Your task to perform on an android device: Open Maps and search for coffee Image 0: 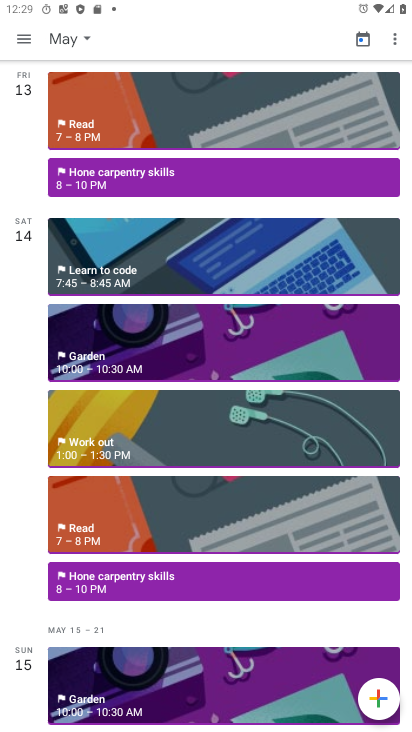
Step 0: press home button
Your task to perform on an android device: Open Maps and search for coffee Image 1: 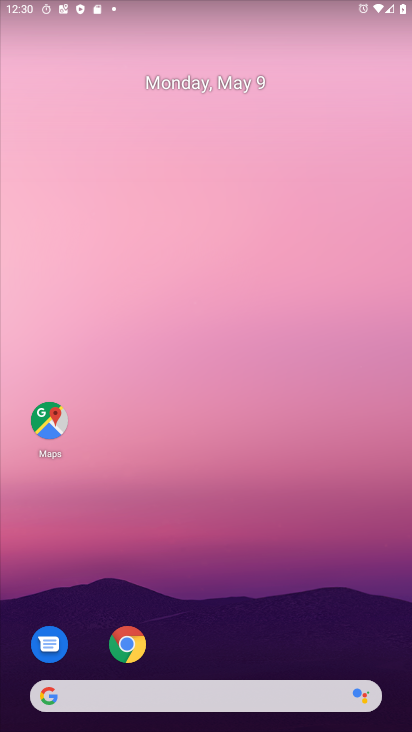
Step 1: click (52, 423)
Your task to perform on an android device: Open Maps and search for coffee Image 2: 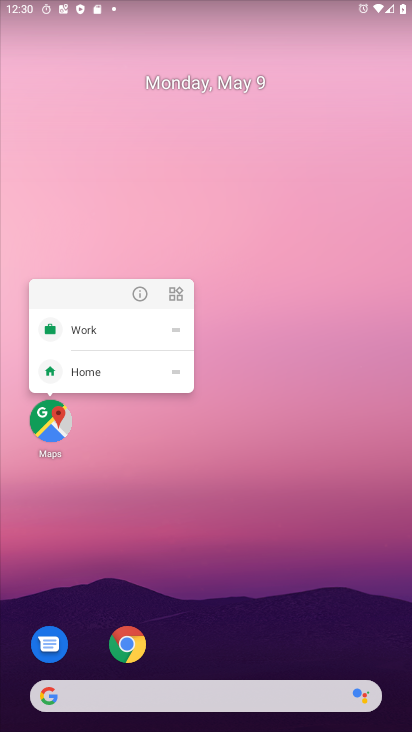
Step 2: click (50, 420)
Your task to perform on an android device: Open Maps and search for coffee Image 3: 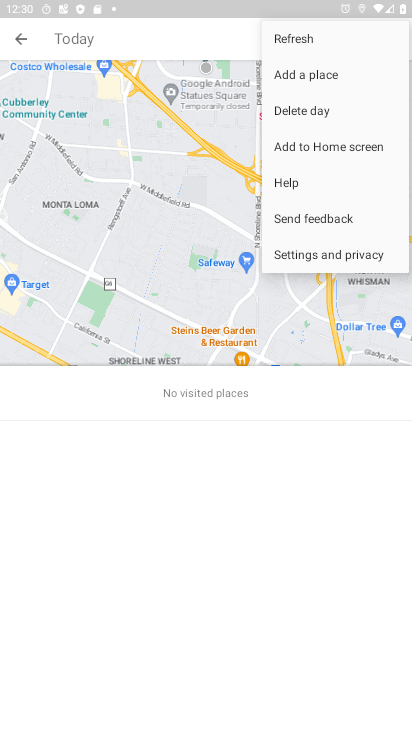
Step 3: click (22, 39)
Your task to perform on an android device: Open Maps and search for coffee Image 4: 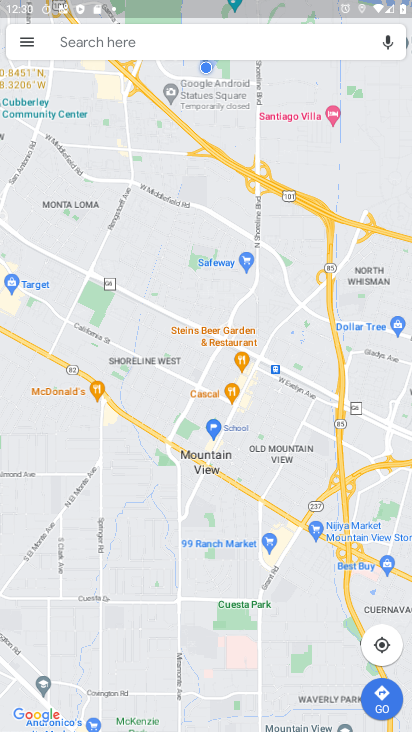
Step 4: click (67, 37)
Your task to perform on an android device: Open Maps and search for coffee Image 5: 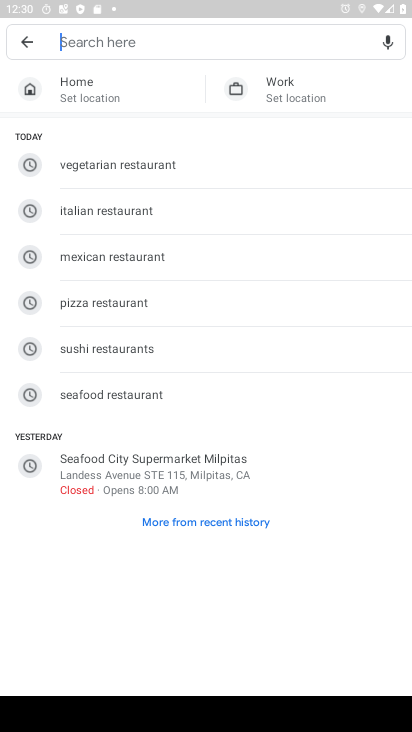
Step 5: type "coffee"
Your task to perform on an android device: Open Maps and search for coffee Image 6: 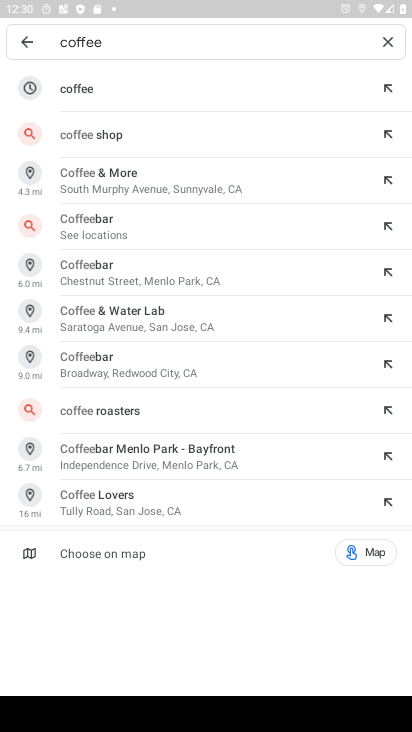
Step 6: click (56, 89)
Your task to perform on an android device: Open Maps and search for coffee Image 7: 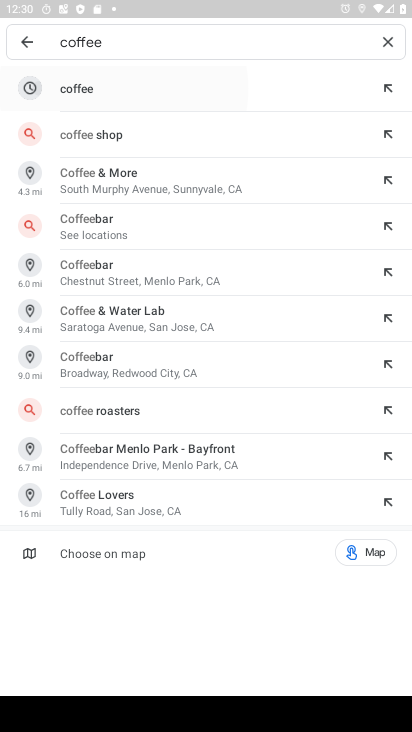
Step 7: click (59, 87)
Your task to perform on an android device: Open Maps and search for coffee Image 8: 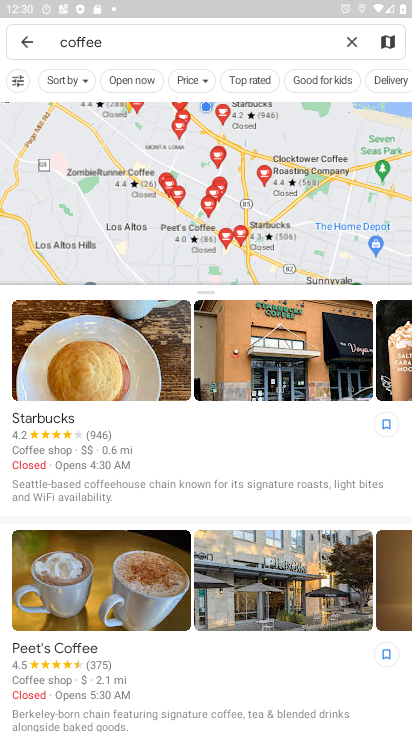
Step 8: task complete